Your task to perform on an android device: Open settings on Google Maps Image 0: 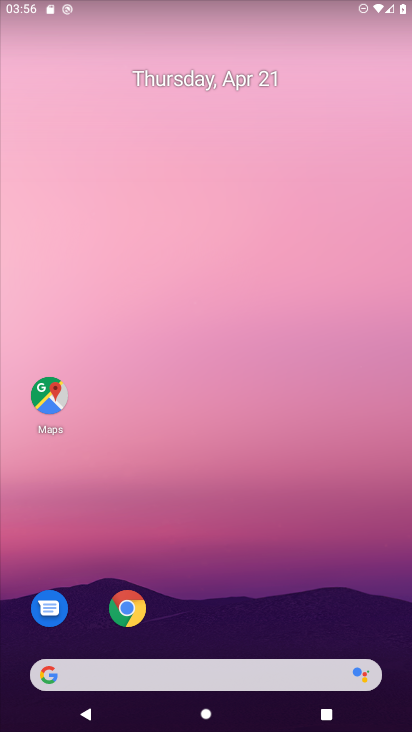
Step 0: drag from (337, 420) to (332, 247)
Your task to perform on an android device: Open settings on Google Maps Image 1: 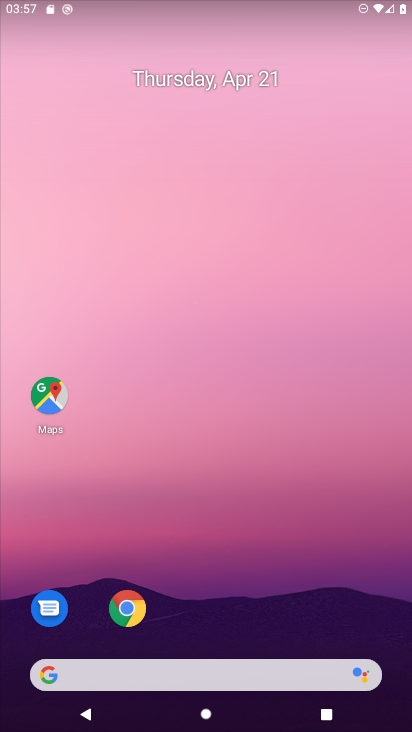
Step 1: click (328, 256)
Your task to perform on an android device: Open settings on Google Maps Image 2: 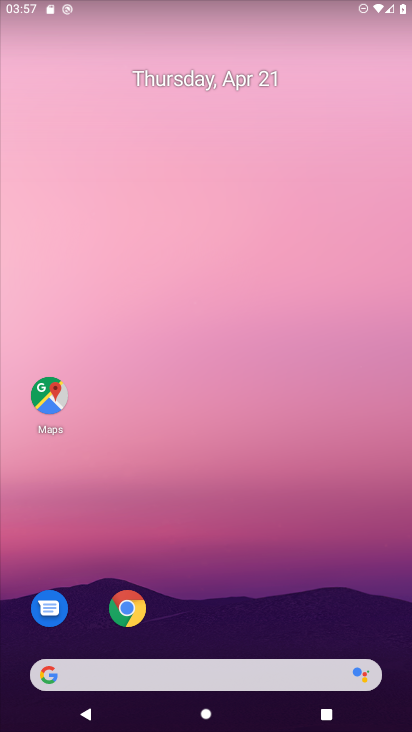
Step 2: drag from (265, 548) to (310, 195)
Your task to perform on an android device: Open settings on Google Maps Image 3: 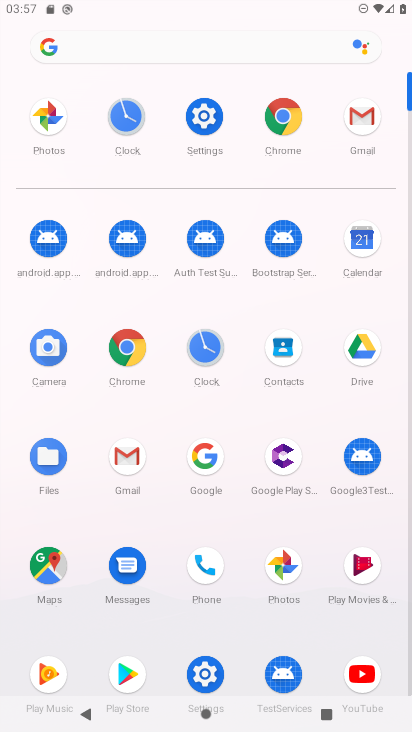
Step 3: click (53, 558)
Your task to perform on an android device: Open settings on Google Maps Image 4: 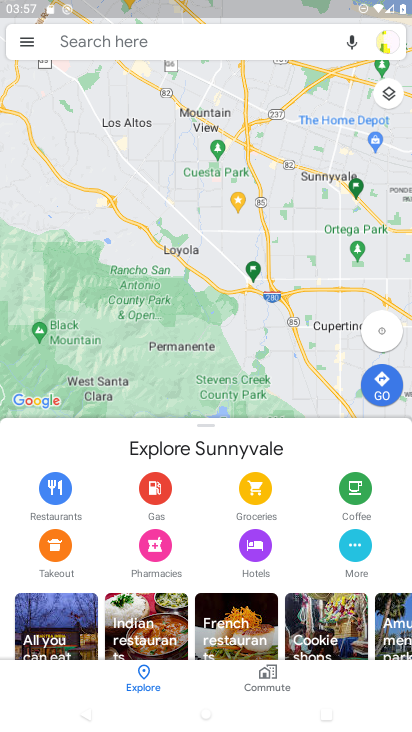
Step 4: click (23, 33)
Your task to perform on an android device: Open settings on Google Maps Image 5: 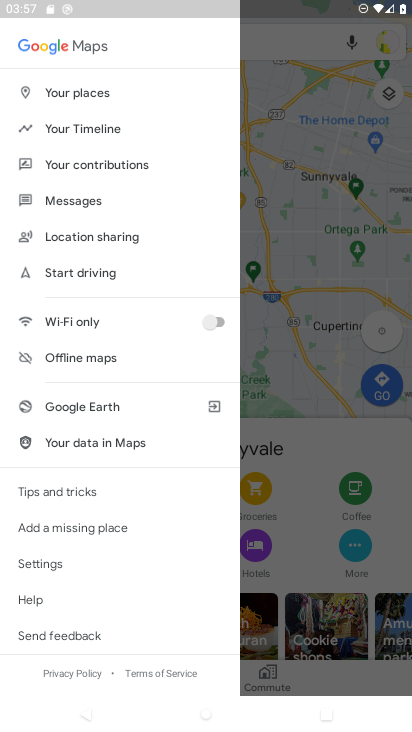
Step 5: click (49, 564)
Your task to perform on an android device: Open settings on Google Maps Image 6: 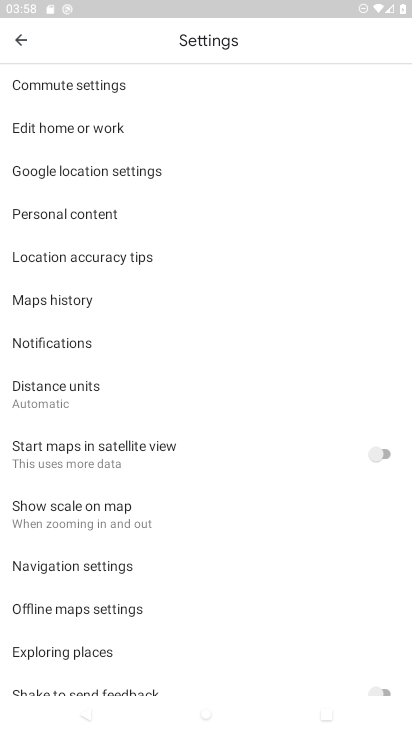
Step 6: task complete